Your task to perform on an android device: open app "Facebook Messenger" (install if not already installed) Image 0: 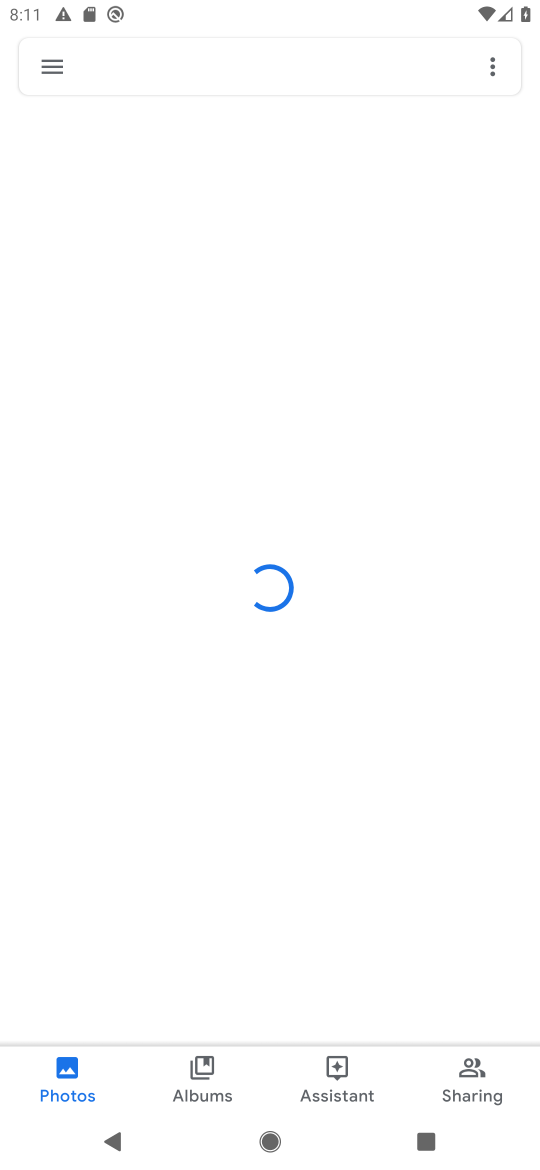
Step 0: press home button
Your task to perform on an android device: open app "Facebook Messenger" (install if not already installed) Image 1: 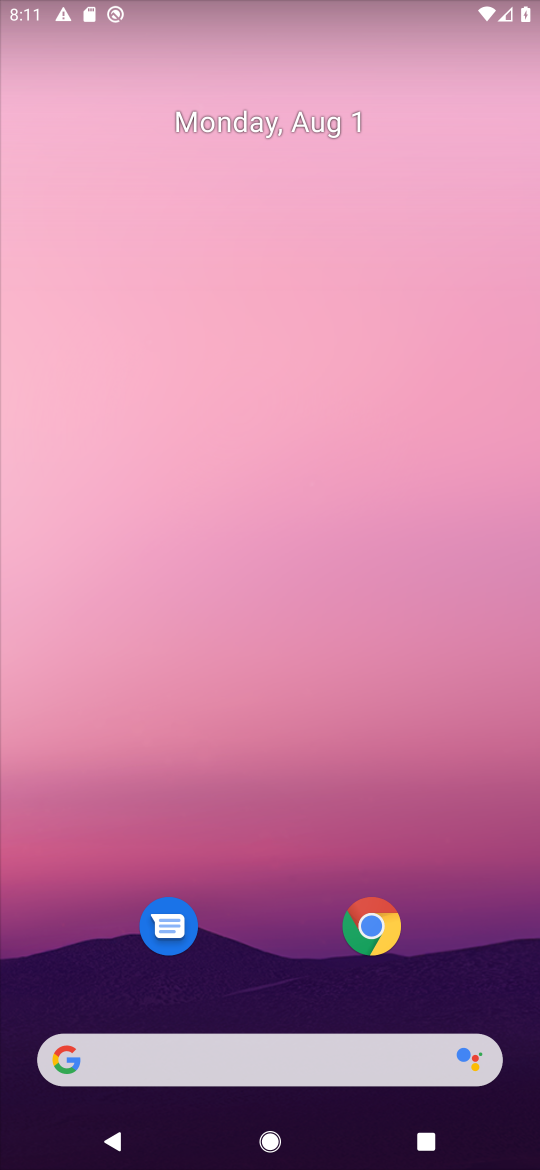
Step 1: drag from (282, 1004) to (290, 318)
Your task to perform on an android device: open app "Facebook Messenger" (install if not already installed) Image 2: 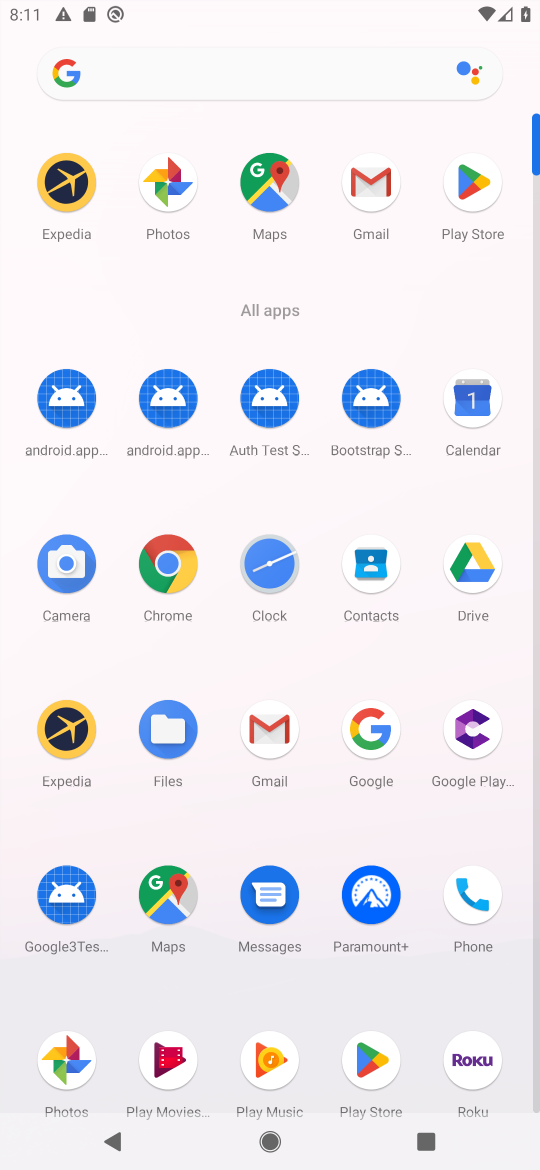
Step 2: click (468, 171)
Your task to perform on an android device: open app "Facebook Messenger" (install if not already installed) Image 3: 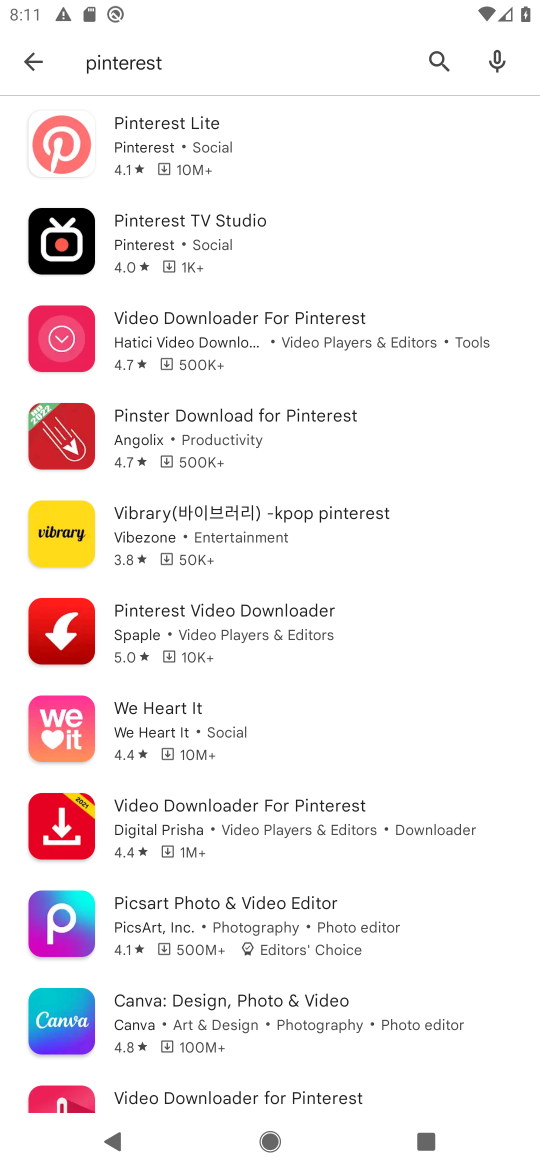
Step 3: click (435, 58)
Your task to perform on an android device: open app "Facebook Messenger" (install if not already installed) Image 4: 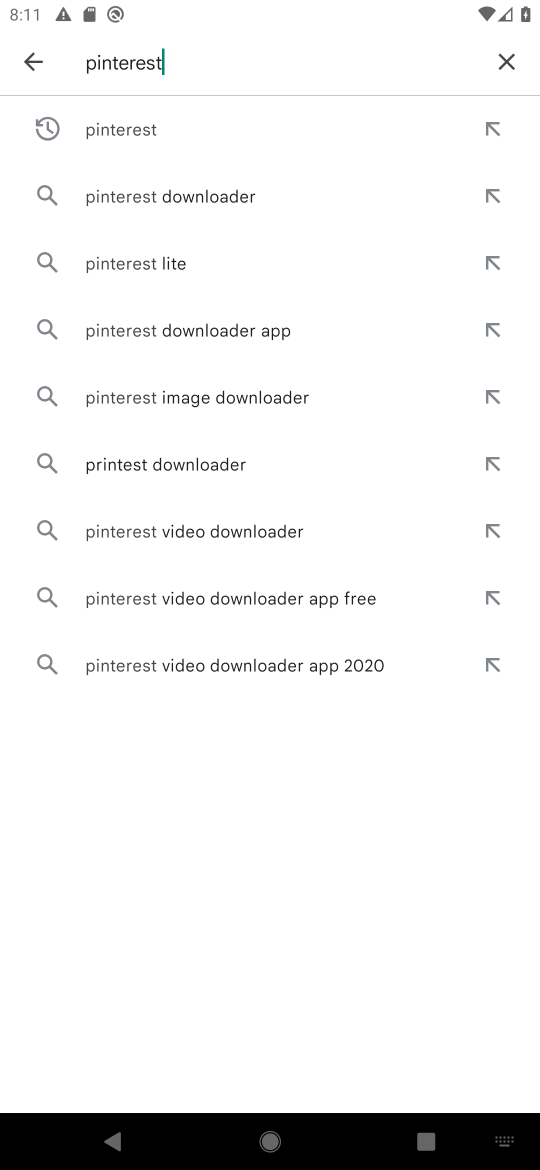
Step 4: click (511, 56)
Your task to perform on an android device: open app "Facebook Messenger" (install if not already installed) Image 5: 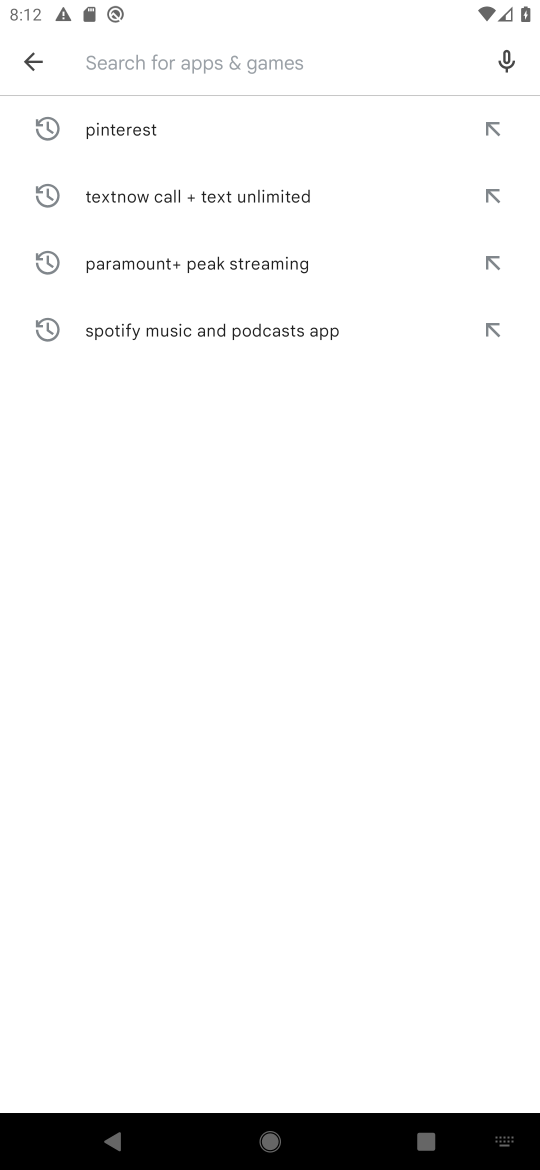
Step 5: type "Facebook Messenger"
Your task to perform on an android device: open app "Facebook Messenger" (install if not already installed) Image 6: 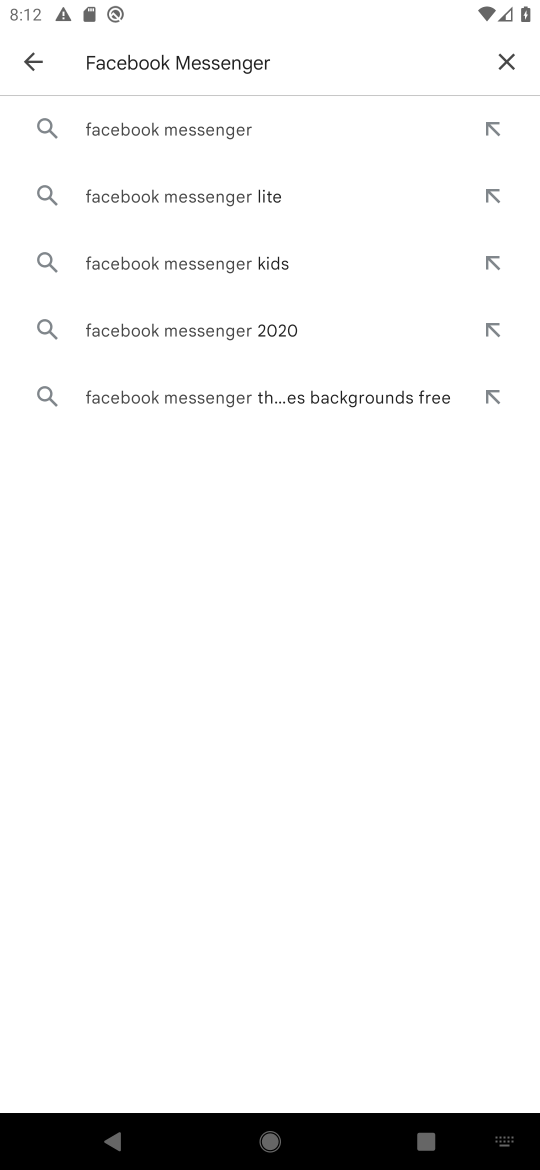
Step 6: click (210, 121)
Your task to perform on an android device: open app "Facebook Messenger" (install if not already installed) Image 7: 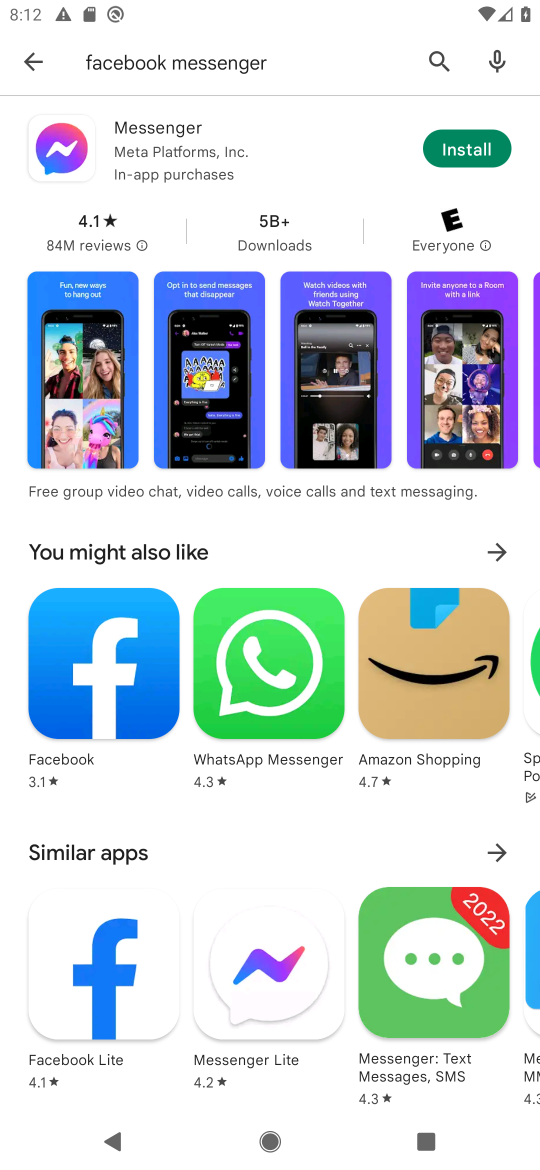
Step 7: click (462, 148)
Your task to perform on an android device: open app "Facebook Messenger" (install if not already installed) Image 8: 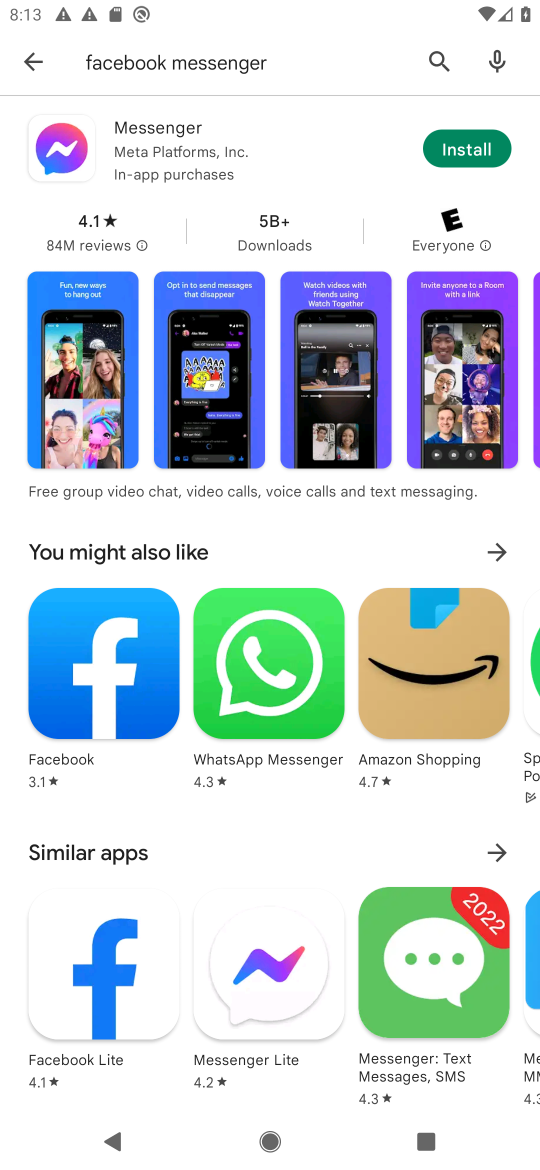
Step 8: click (477, 131)
Your task to perform on an android device: open app "Facebook Messenger" (install if not already installed) Image 9: 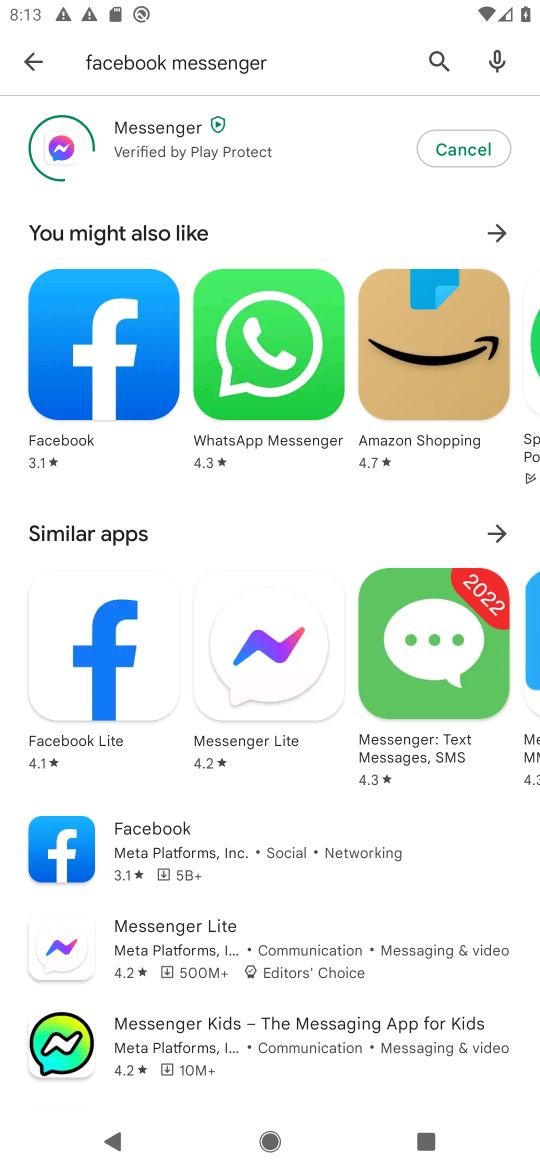
Step 9: click (478, 150)
Your task to perform on an android device: open app "Facebook Messenger" (install if not already installed) Image 10: 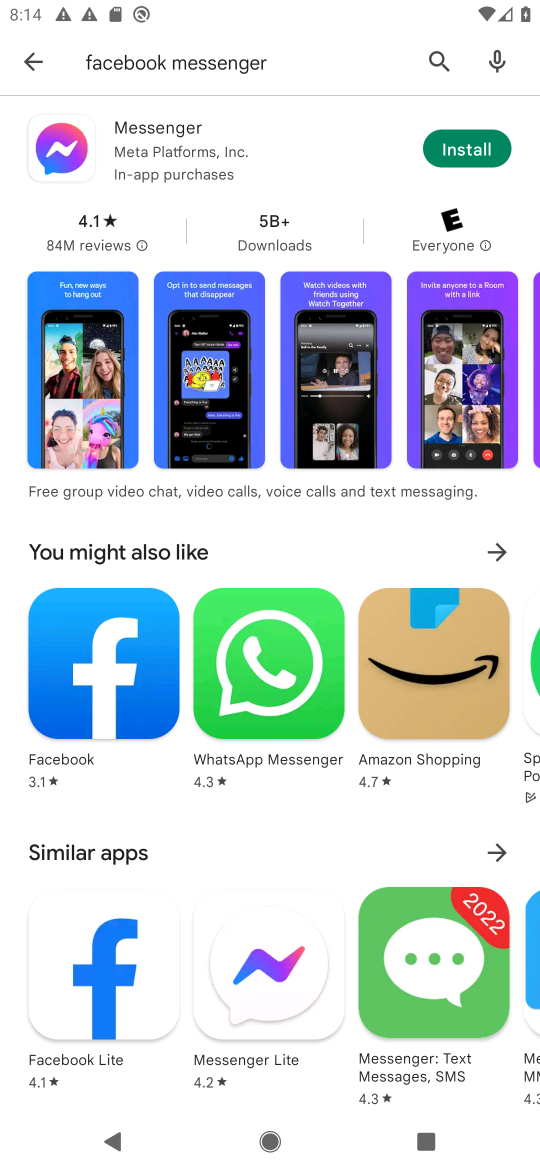
Step 10: task complete